Your task to perform on an android device: see creations saved in the google photos Image 0: 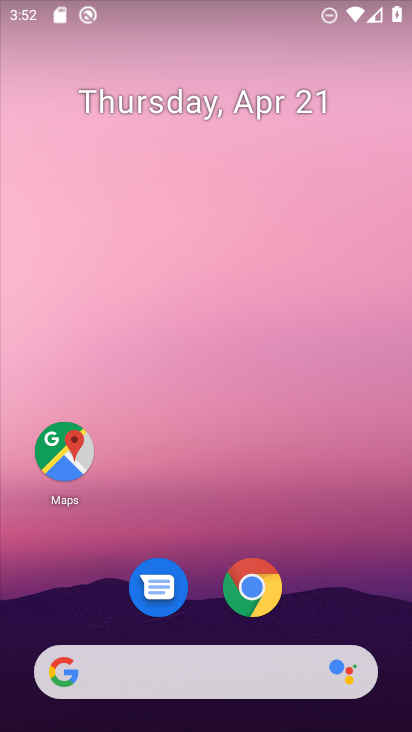
Step 0: drag from (374, 486) to (387, 13)
Your task to perform on an android device: see creations saved in the google photos Image 1: 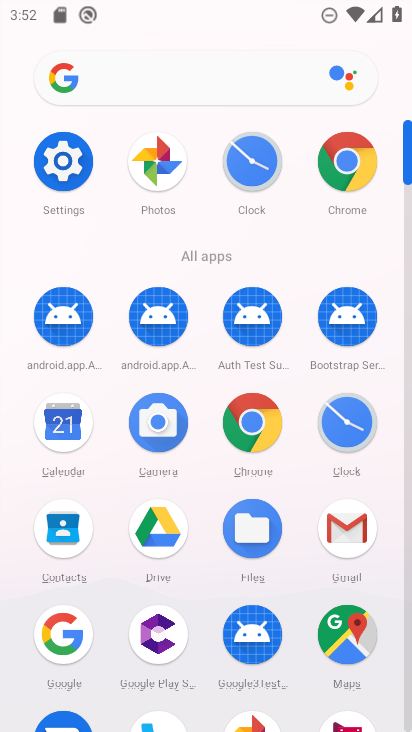
Step 1: click (150, 163)
Your task to perform on an android device: see creations saved in the google photos Image 2: 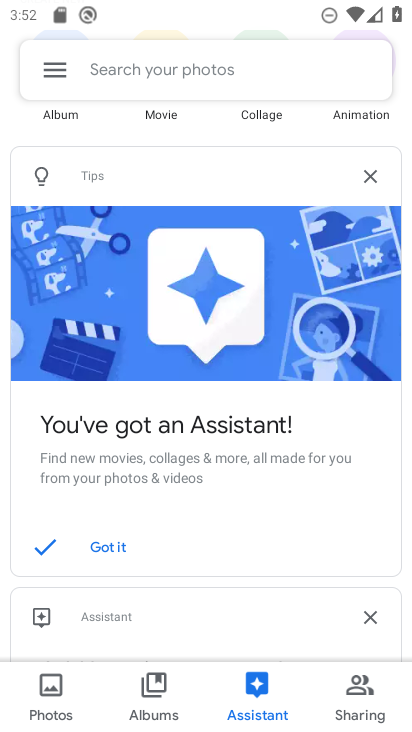
Step 2: click (146, 70)
Your task to perform on an android device: see creations saved in the google photos Image 3: 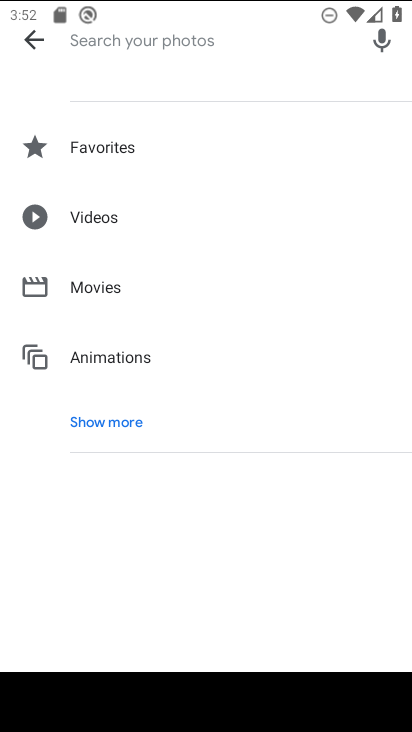
Step 3: click (99, 421)
Your task to perform on an android device: see creations saved in the google photos Image 4: 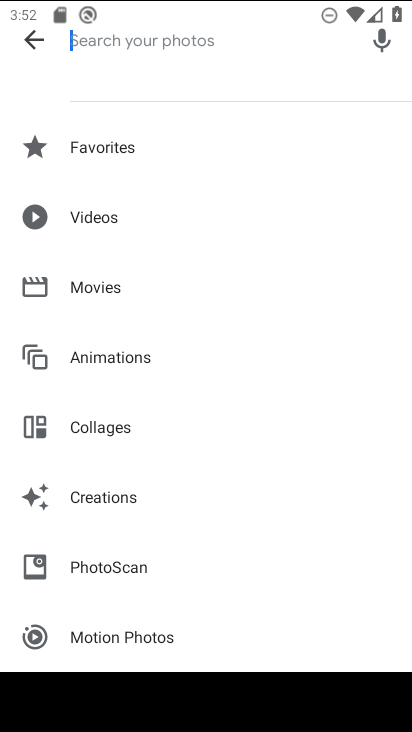
Step 4: click (97, 495)
Your task to perform on an android device: see creations saved in the google photos Image 5: 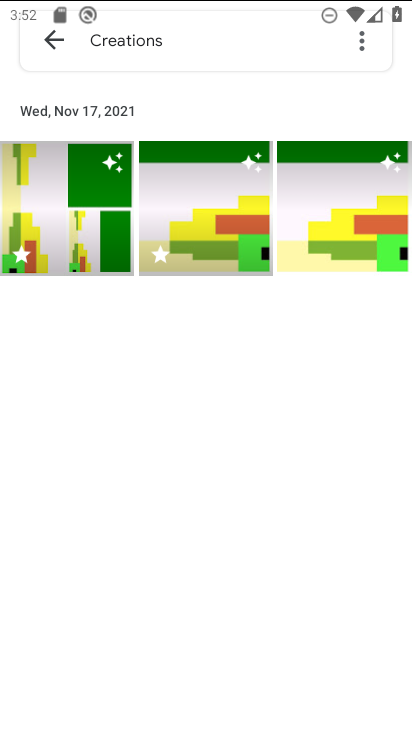
Step 5: task complete